Your task to perform on an android device: What's on my calendar today? Image 0: 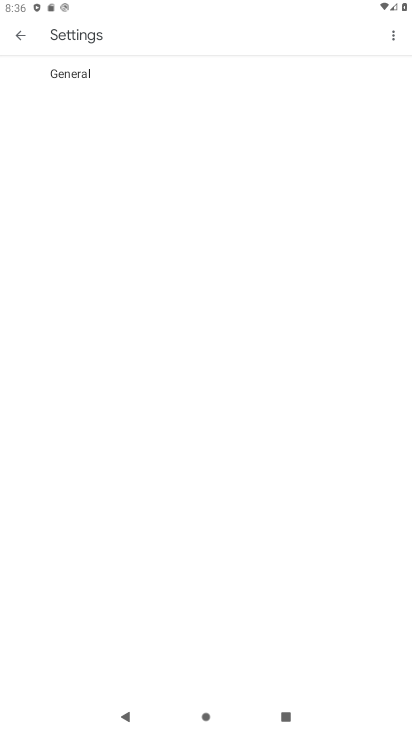
Step 0: press home button
Your task to perform on an android device: What's on my calendar today? Image 1: 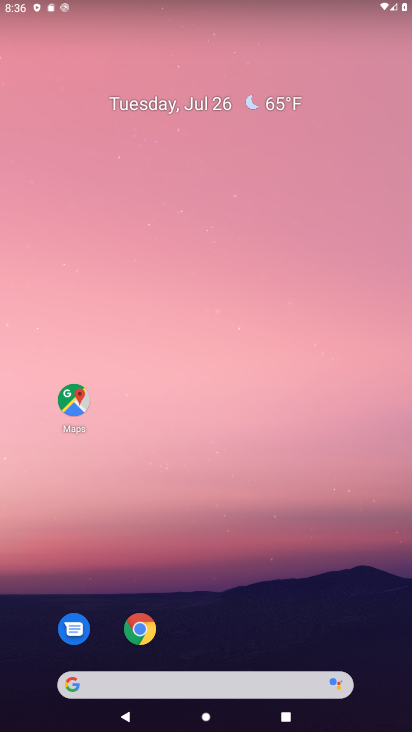
Step 1: drag from (329, 581) to (309, 62)
Your task to perform on an android device: What's on my calendar today? Image 2: 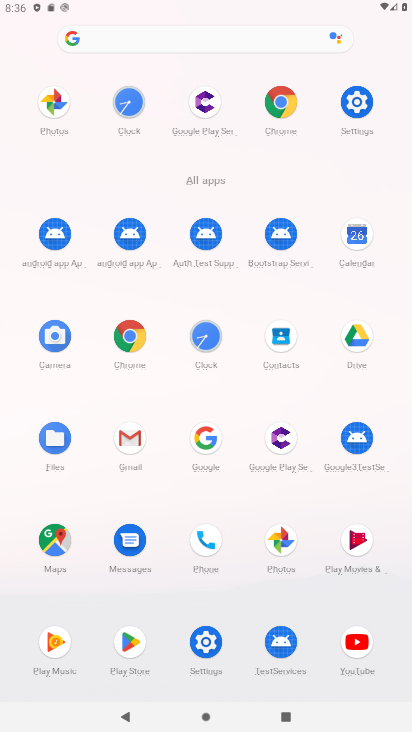
Step 2: click (345, 238)
Your task to perform on an android device: What's on my calendar today? Image 3: 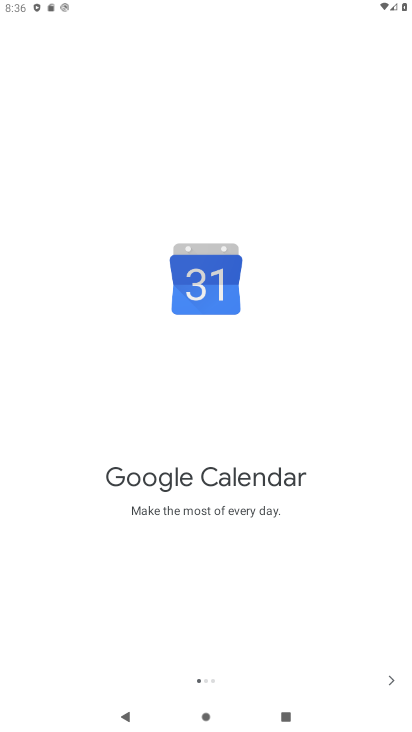
Step 3: click (388, 680)
Your task to perform on an android device: What's on my calendar today? Image 4: 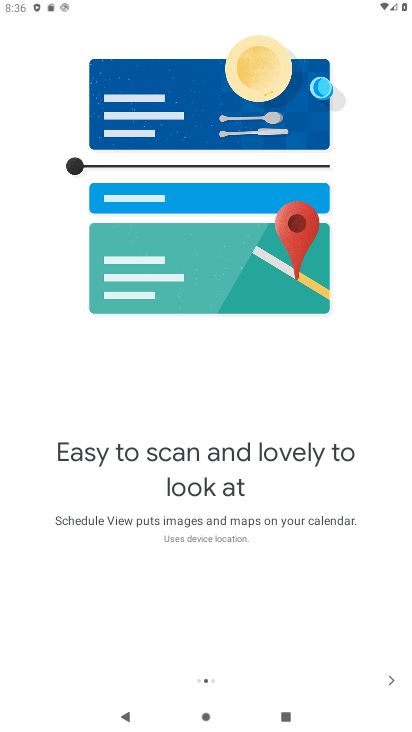
Step 4: click (388, 680)
Your task to perform on an android device: What's on my calendar today? Image 5: 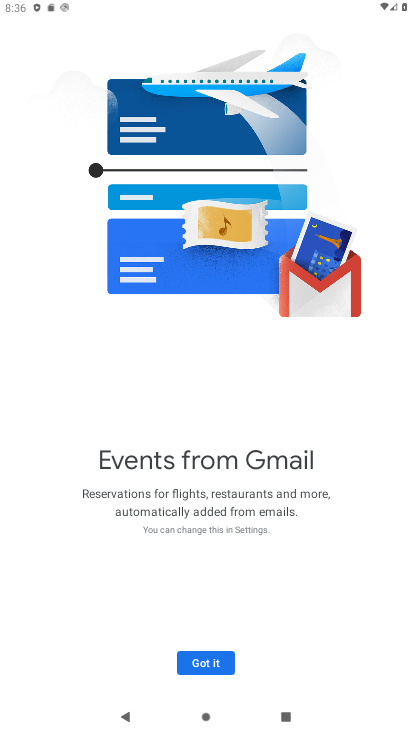
Step 5: click (209, 662)
Your task to perform on an android device: What's on my calendar today? Image 6: 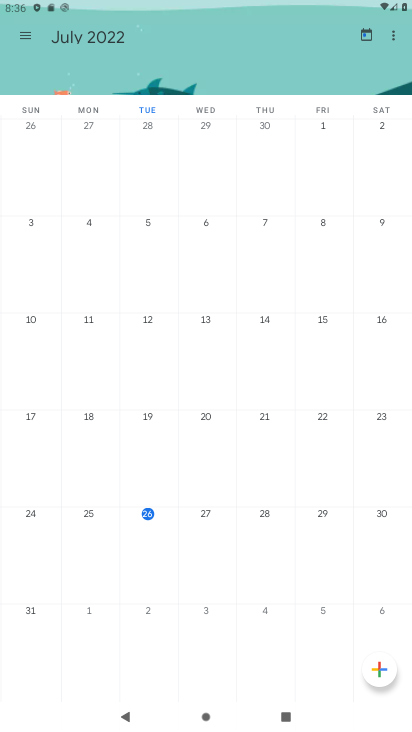
Step 6: click (162, 535)
Your task to perform on an android device: What's on my calendar today? Image 7: 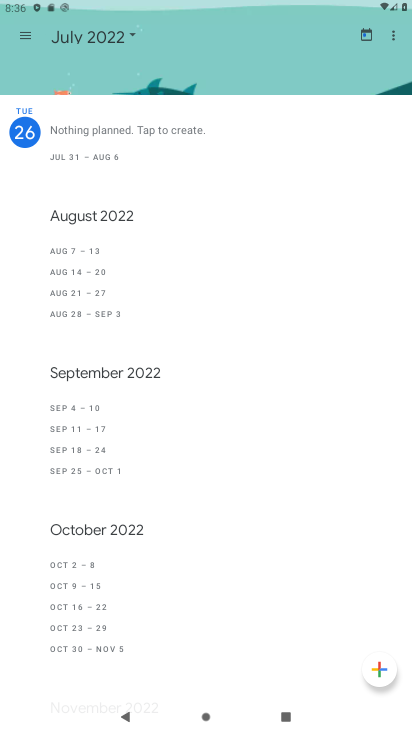
Step 7: task complete